Your task to perform on an android device: empty trash in the gmail app Image 0: 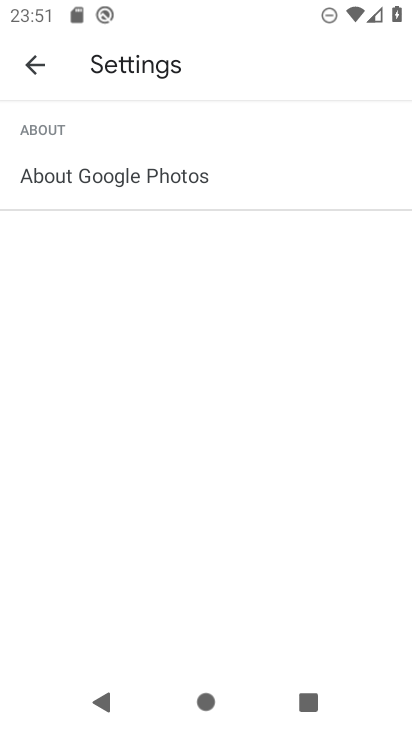
Step 0: press home button
Your task to perform on an android device: empty trash in the gmail app Image 1: 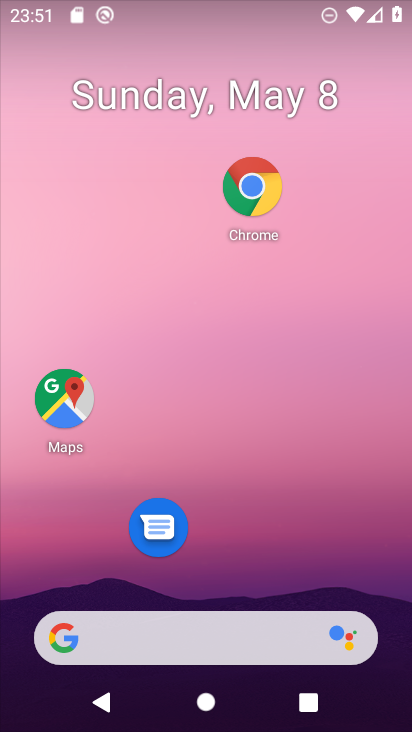
Step 1: drag from (262, 482) to (307, 180)
Your task to perform on an android device: empty trash in the gmail app Image 2: 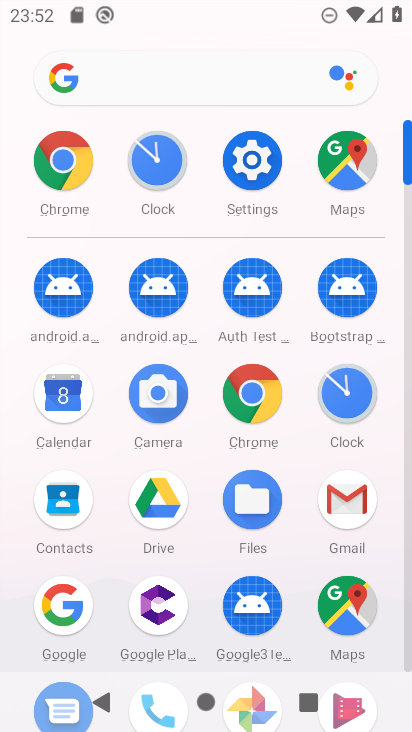
Step 2: click (348, 496)
Your task to perform on an android device: empty trash in the gmail app Image 3: 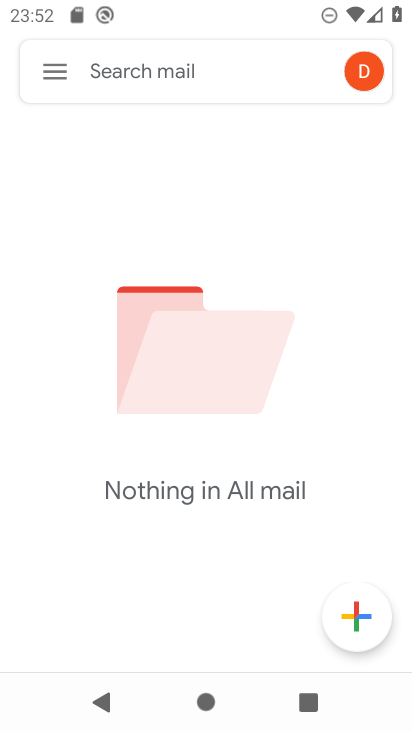
Step 3: click (61, 69)
Your task to perform on an android device: empty trash in the gmail app Image 4: 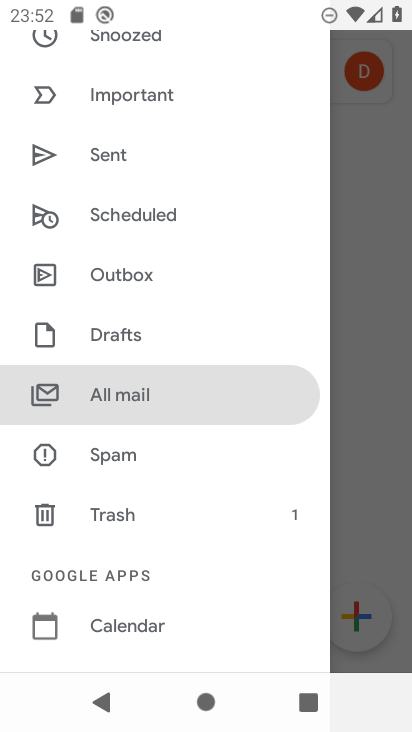
Step 4: click (137, 522)
Your task to perform on an android device: empty trash in the gmail app Image 5: 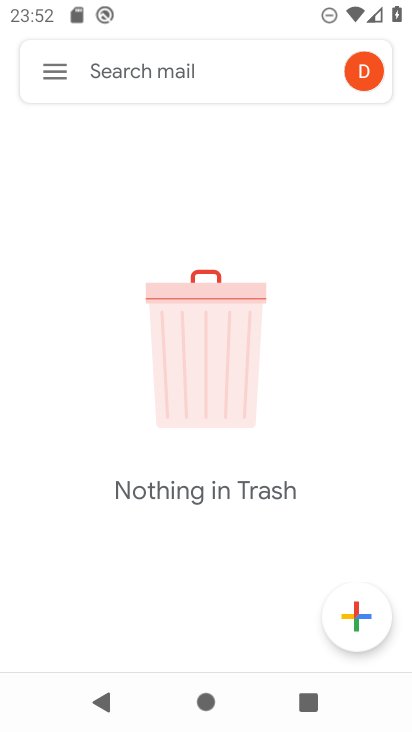
Step 5: task complete